Your task to perform on an android device: Clear all items from cart on target.com. Image 0: 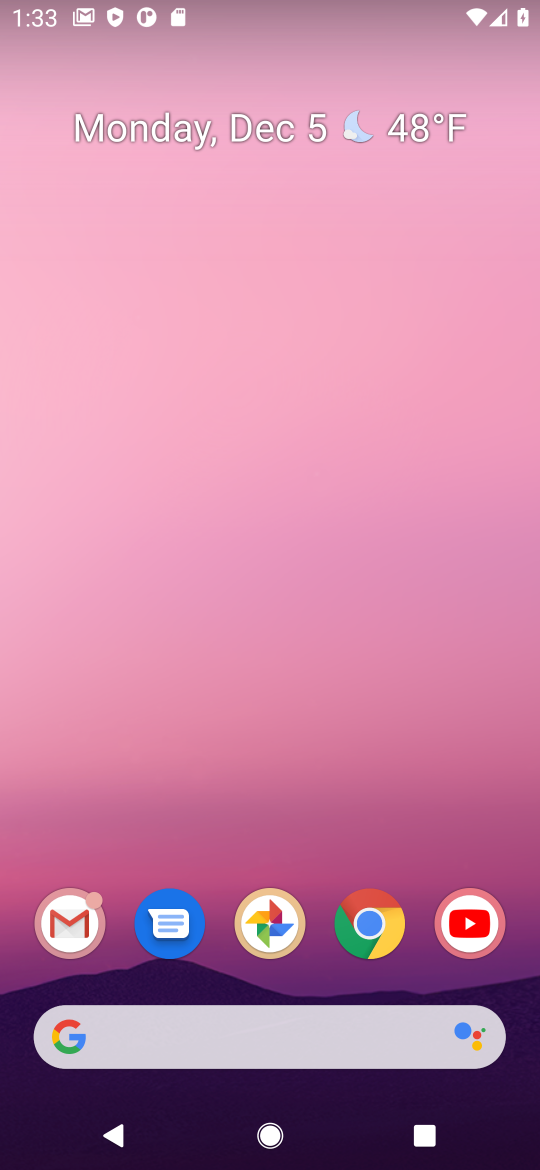
Step 0: click (306, 1024)
Your task to perform on an android device: Clear all items from cart on target.com. Image 1: 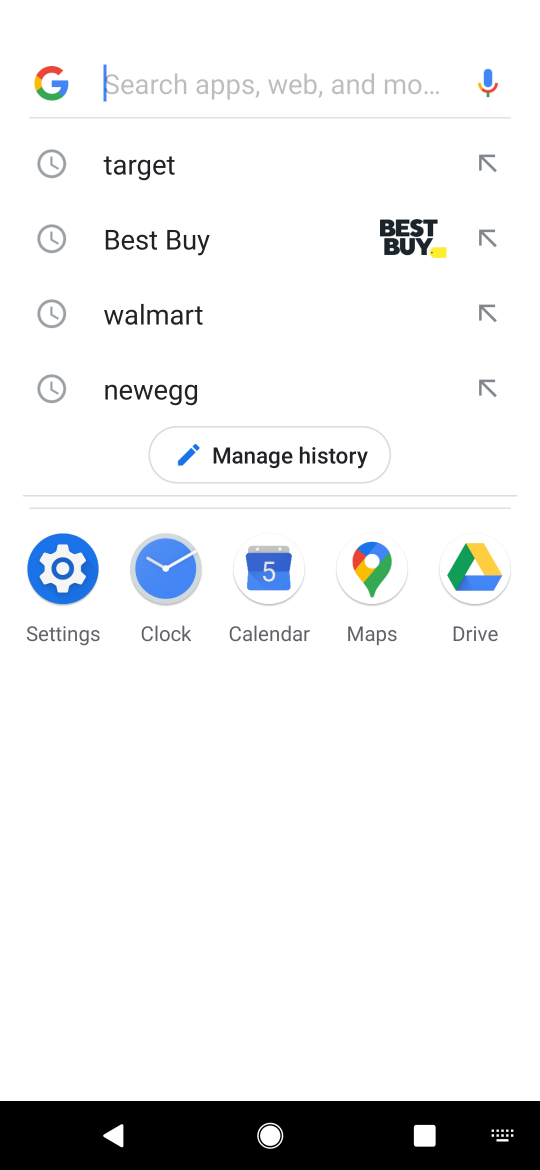
Step 1: type "target"
Your task to perform on an android device: Clear all items from cart on target.com. Image 2: 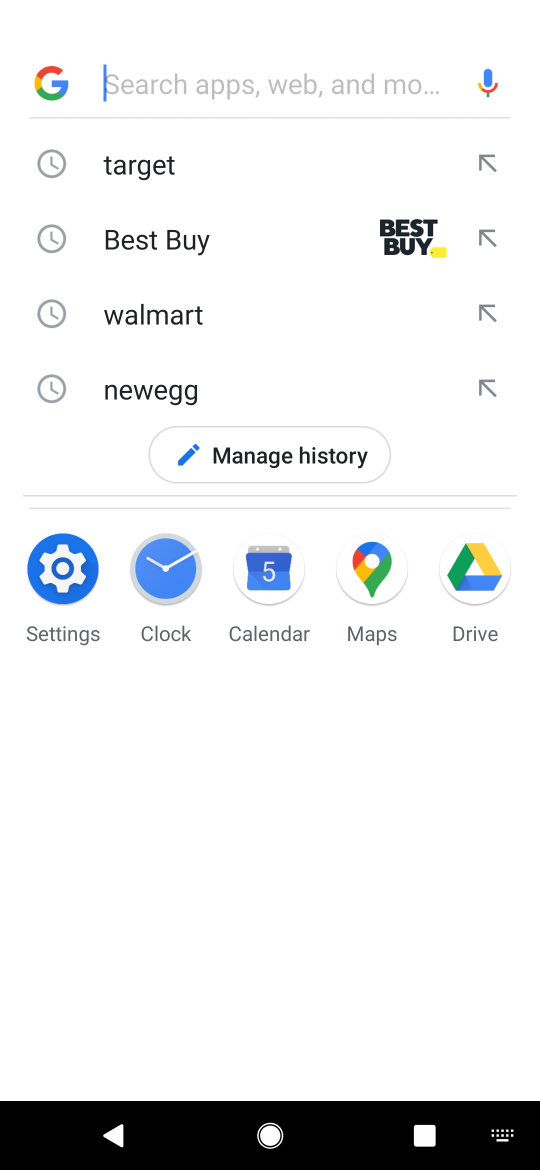
Step 2: click (232, 145)
Your task to perform on an android device: Clear all items from cart on target.com. Image 3: 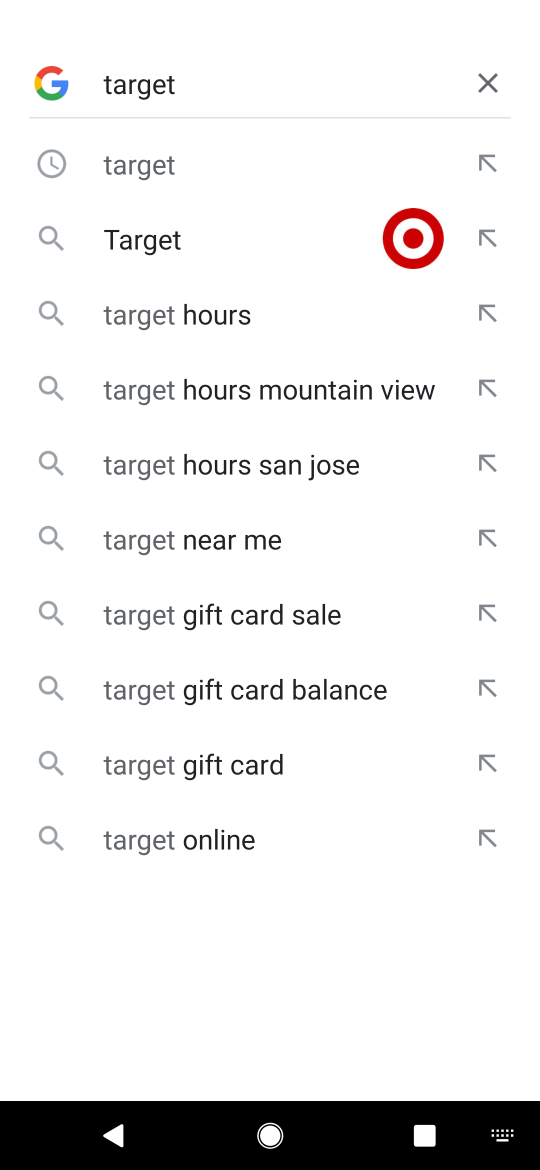
Step 3: type "\"
Your task to perform on an android device: Clear all items from cart on target.com. Image 4: 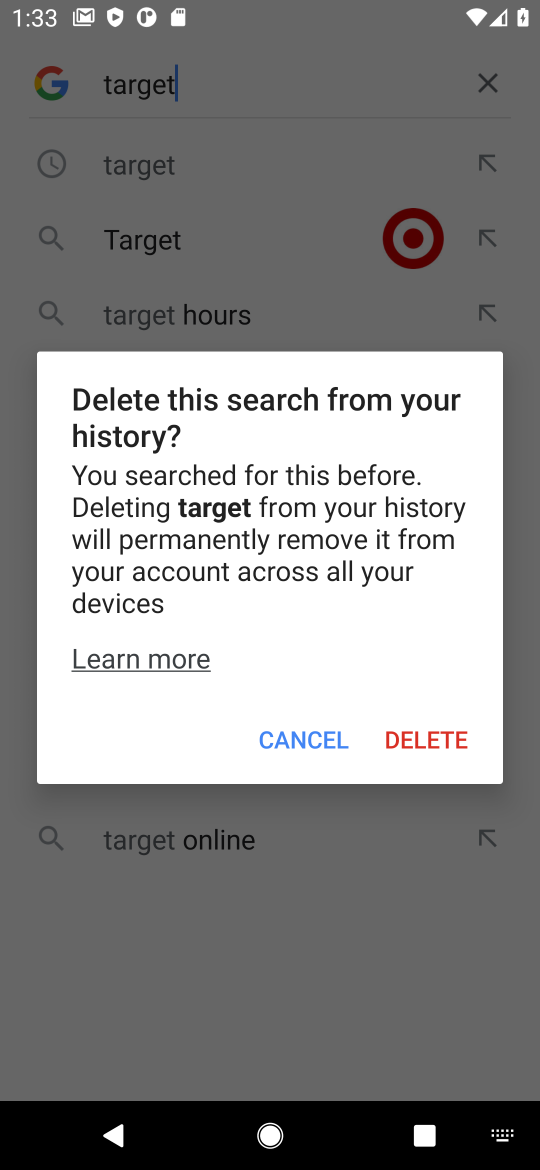
Step 4: task complete